Your task to perform on an android device: Go to accessibility settings Image 0: 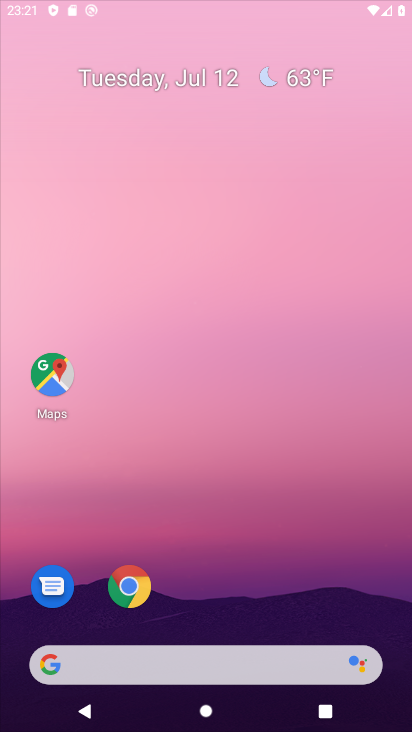
Step 0: press home button
Your task to perform on an android device: Go to accessibility settings Image 1: 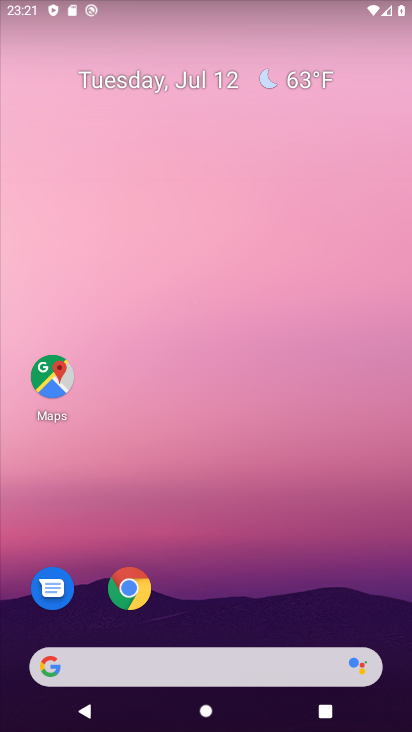
Step 1: drag from (62, 653) to (161, 257)
Your task to perform on an android device: Go to accessibility settings Image 2: 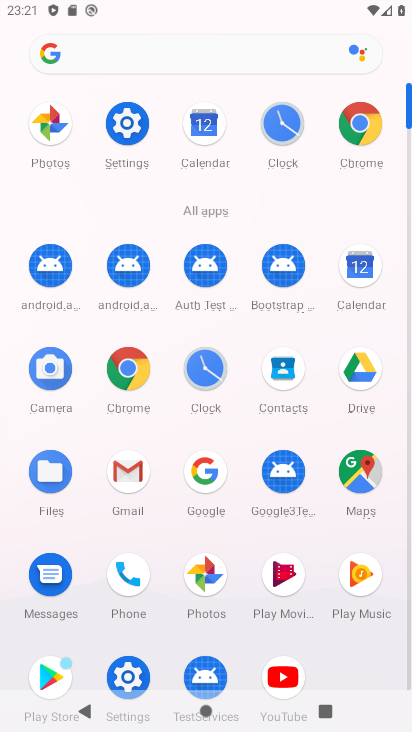
Step 2: click (130, 671)
Your task to perform on an android device: Go to accessibility settings Image 3: 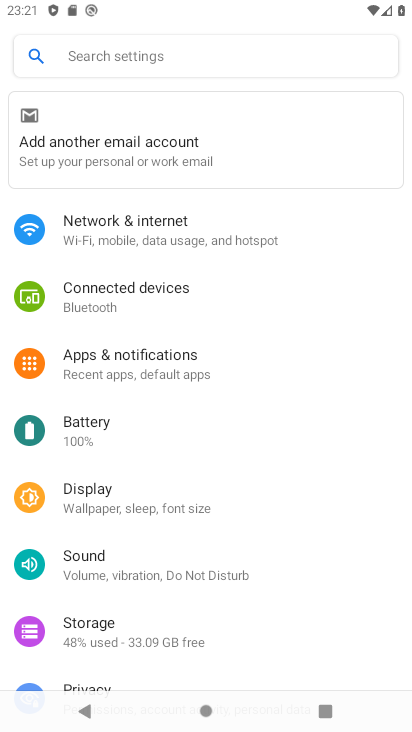
Step 3: drag from (315, 657) to (373, 102)
Your task to perform on an android device: Go to accessibility settings Image 4: 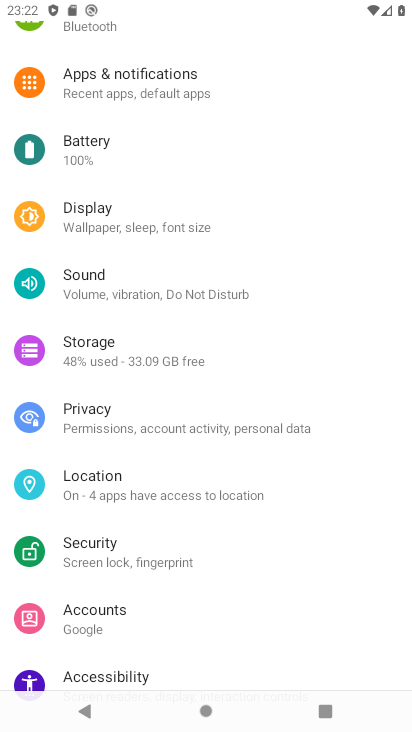
Step 4: drag from (333, 647) to (409, 527)
Your task to perform on an android device: Go to accessibility settings Image 5: 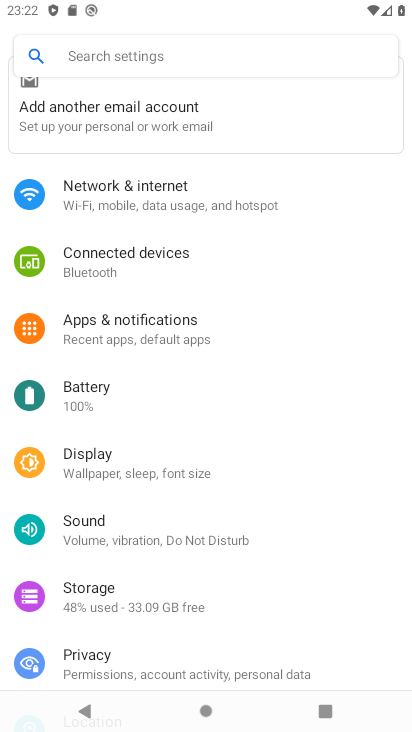
Step 5: drag from (366, 619) to (407, 47)
Your task to perform on an android device: Go to accessibility settings Image 6: 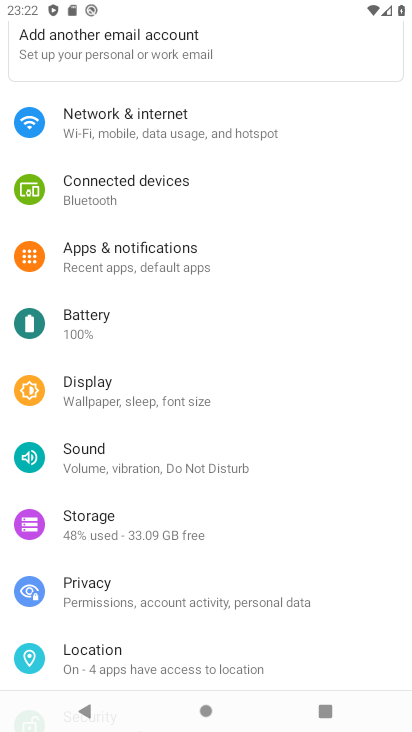
Step 6: drag from (339, 636) to (376, 241)
Your task to perform on an android device: Go to accessibility settings Image 7: 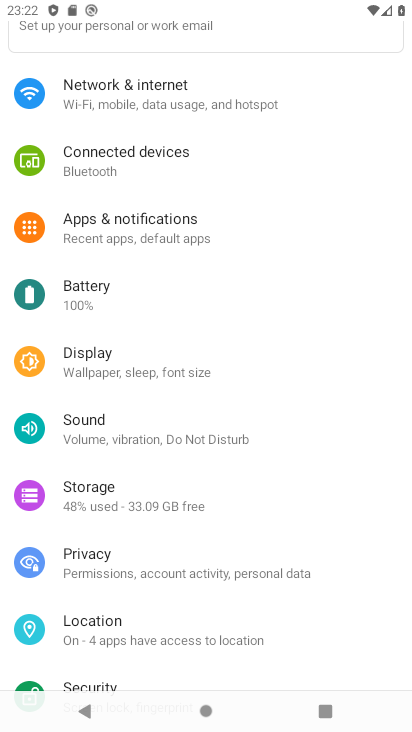
Step 7: drag from (343, 670) to (370, 228)
Your task to perform on an android device: Go to accessibility settings Image 8: 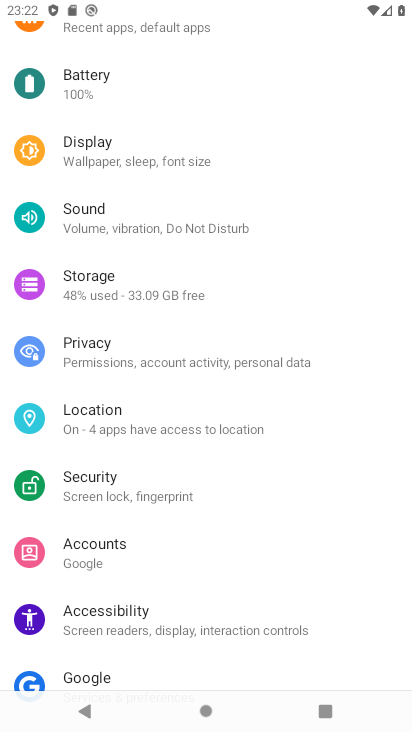
Step 8: click (133, 605)
Your task to perform on an android device: Go to accessibility settings Image 9: 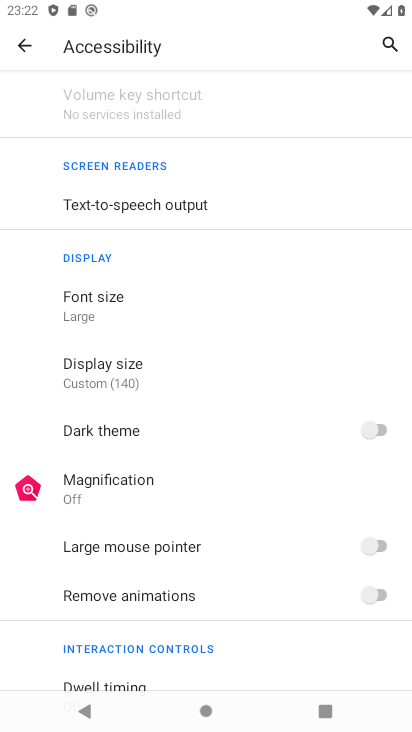
Step 9: task complete